Your task to perform on an android device: Open Maps and search for coffee Image 0: 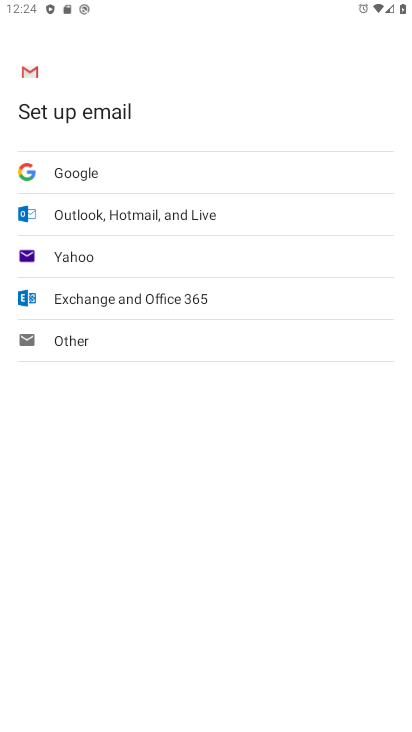
Step 0: press home button
Your task to perform on an android device: Open Maps and search for coffee Image 1: 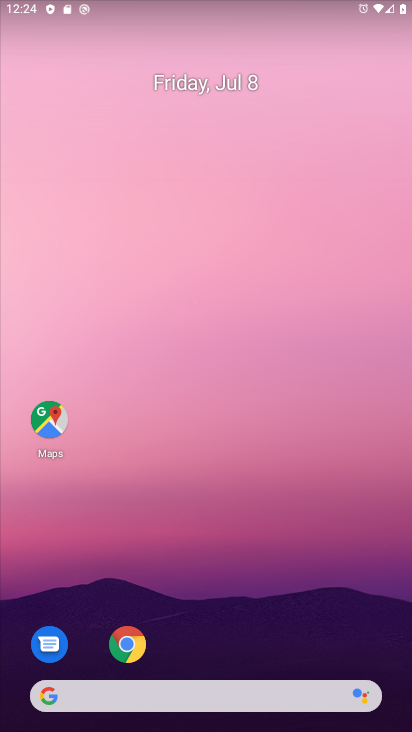
Step 1: click (42, 424)
Your task to perform on an android device: Open Maps and search for coffee Image 2: 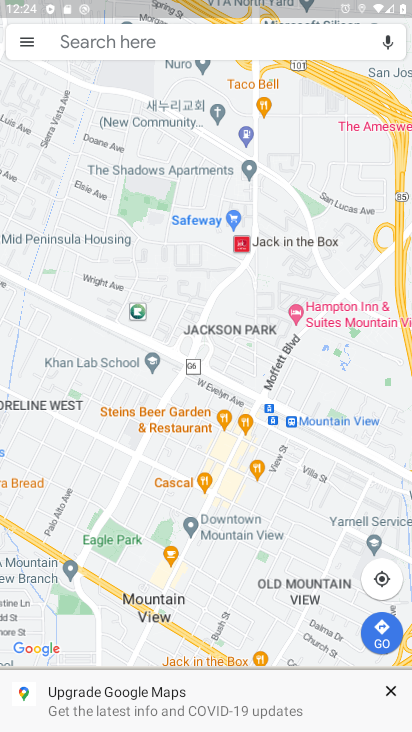
Step 2: click (129, 39)
Your task to perform on an android device: Open Maps and search for coffee Image 3: 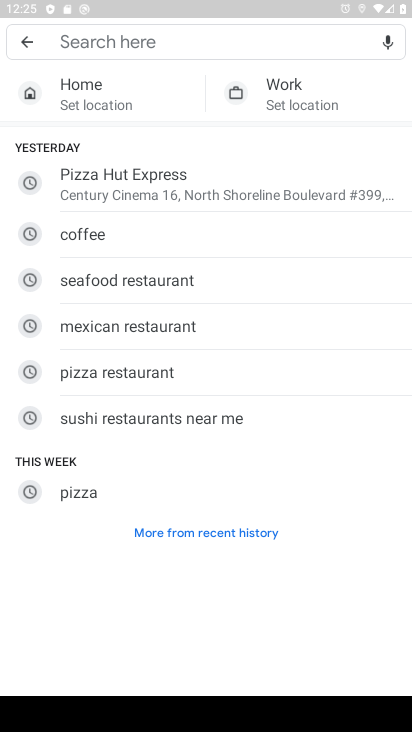
Step 3: type "coffee"
Your task to perform on an android device: Open Maps and search for coffee Image 4: 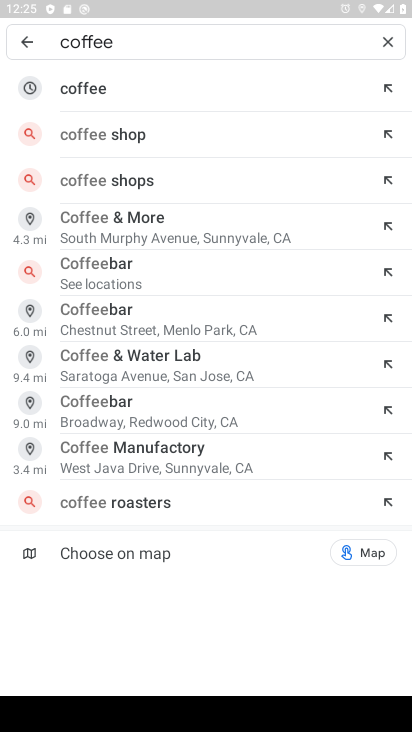
Step 4: click (91, 101)
Your task to perform on an android device: Open Maps and search for coffee Image 5: 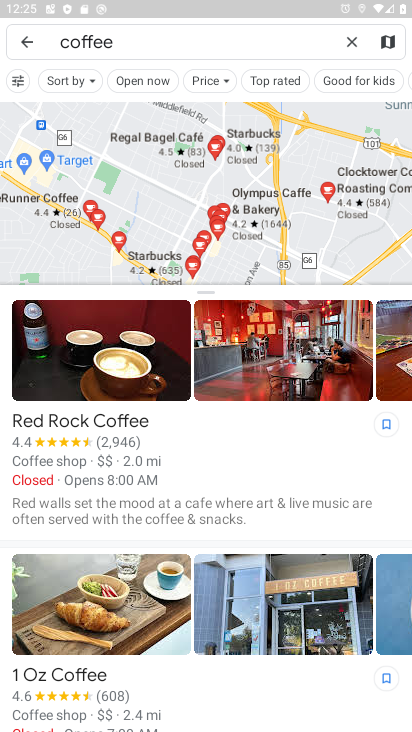
Step 5: task complete